Your task to perform on an android device: set the timer Image 0: 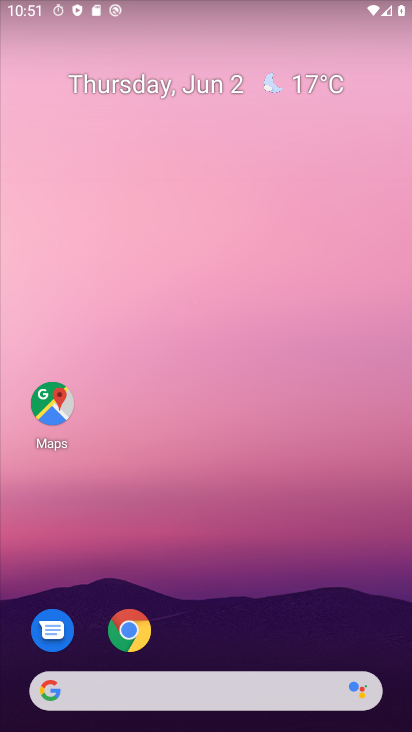
Step 0: drag from (230, 642) to (325, 1)
Your task to perform on an android device: set the timer Image 1: 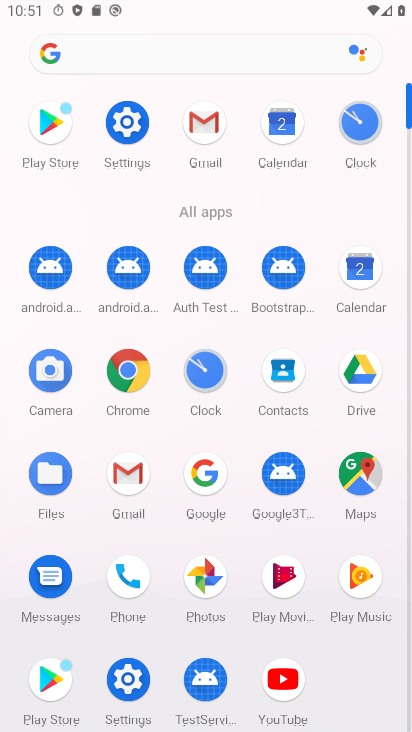
Step 1: click (218, 398)
Your task to perform on an android device: set the timer Image 2: 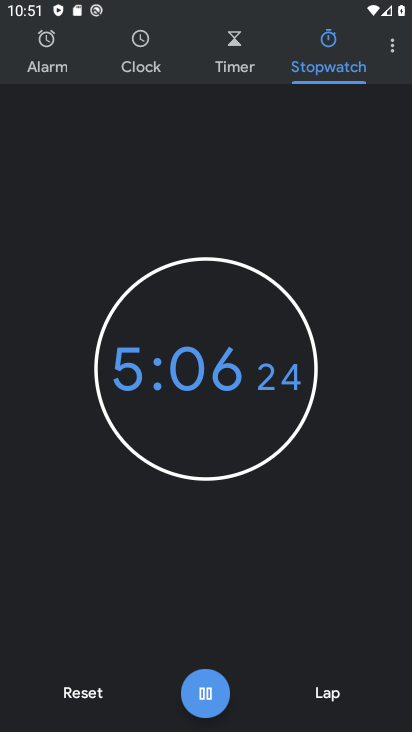
Step 2: click (83, 689)
Your task to perform on an android device: set the timer Image 3: 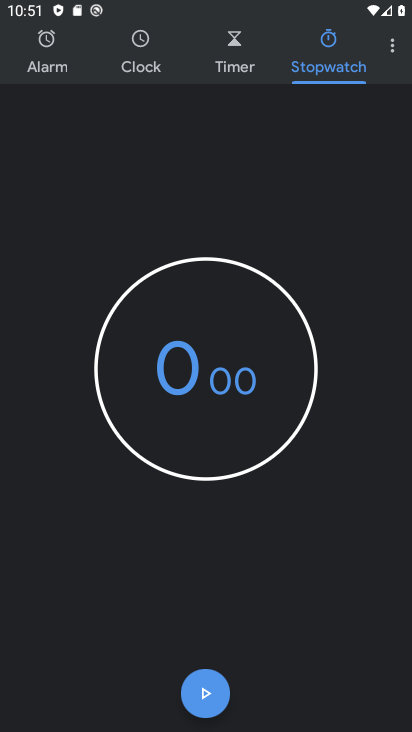
Step 3: click (232, 43)
Your task to perform on an android device: set the timer Image 4: 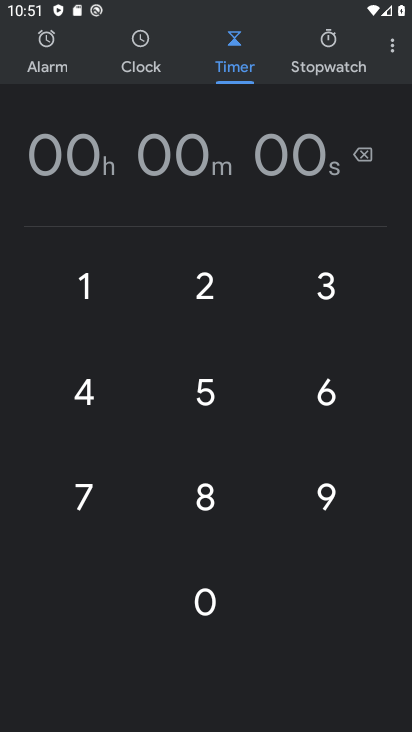
Step 4: click (84, 505)
Your task to perform on an android device: set the timer Image 5: 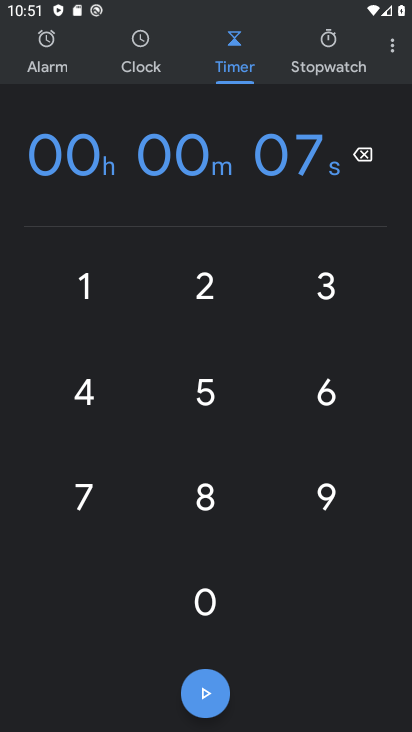
Step 5: click (206, 401)
Your task to perform on an android device: set the timer Image 6: 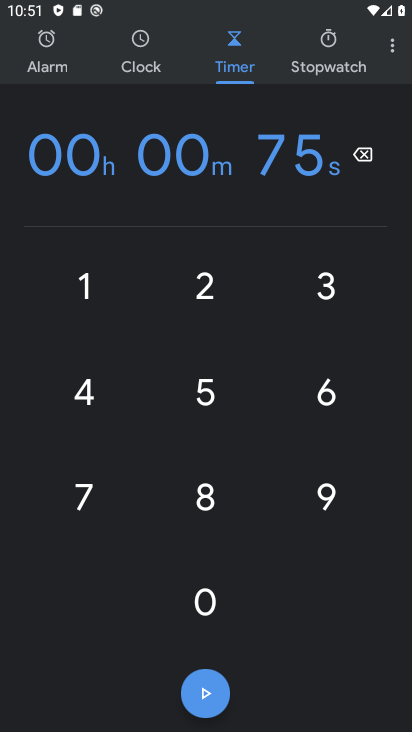
Step 6: click (337, 298)
Your task to perform on an android device: set the timer Image 7: 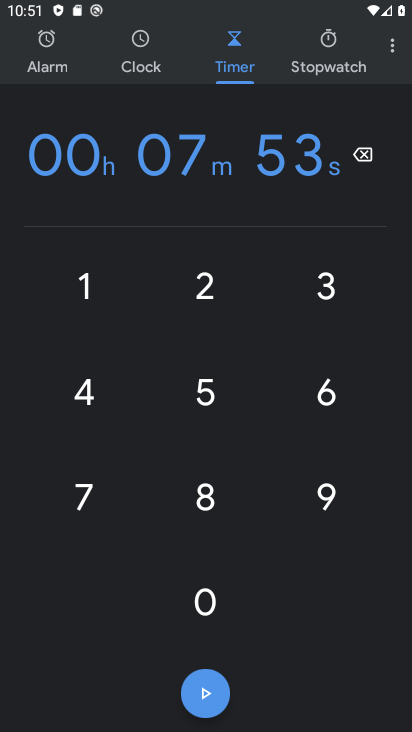
Step 7: click (200, 706)
Your task to perform on an android device: set the timer Image 8: 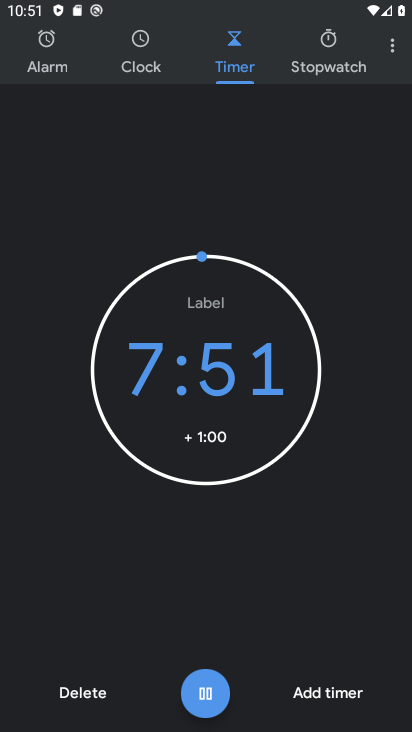
Step 8: task complete